Your task to perform on an android device: open the mobile data screen to see how much data has been used Image 0: 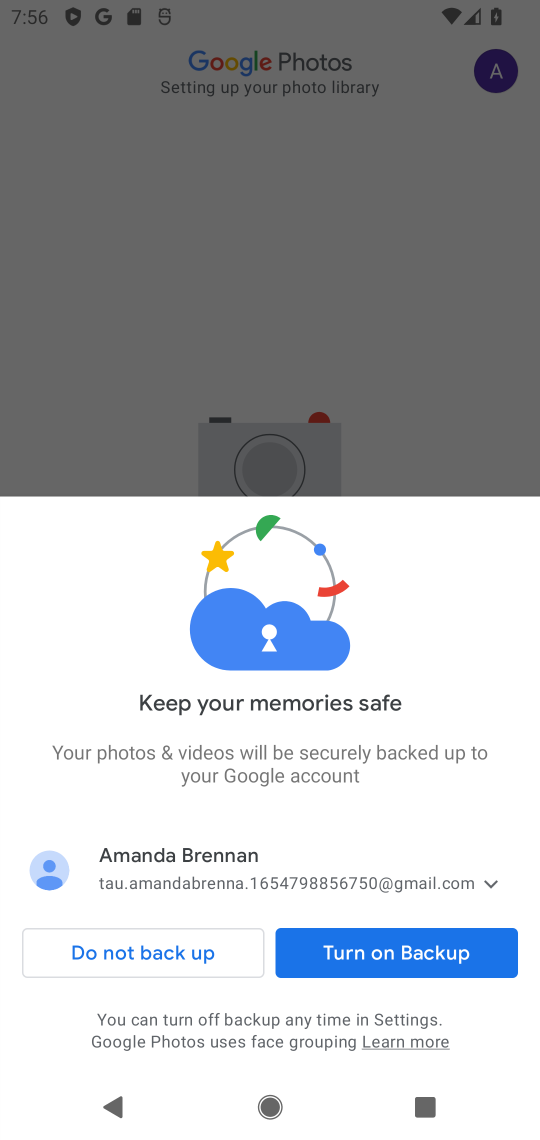
Step 0: press home button
Your task to perform on an android device: open the mobile data screen to see how much data has been used Image 1: 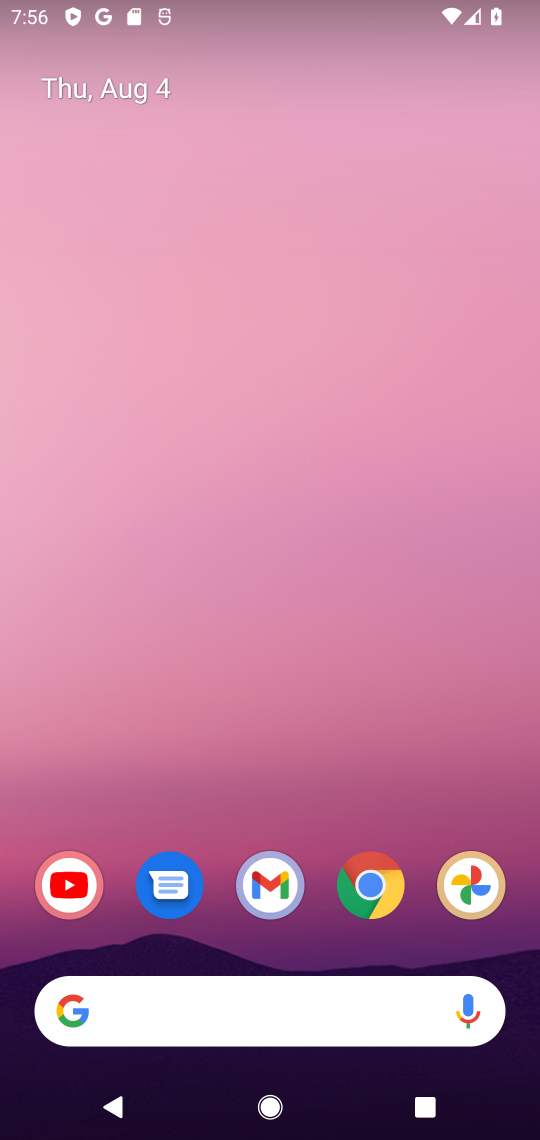
Step 1: drag from (311, 853) to (324, 32)
Your task to perform on an android device: open the mobile data screen to see how much data has been used Image 2: 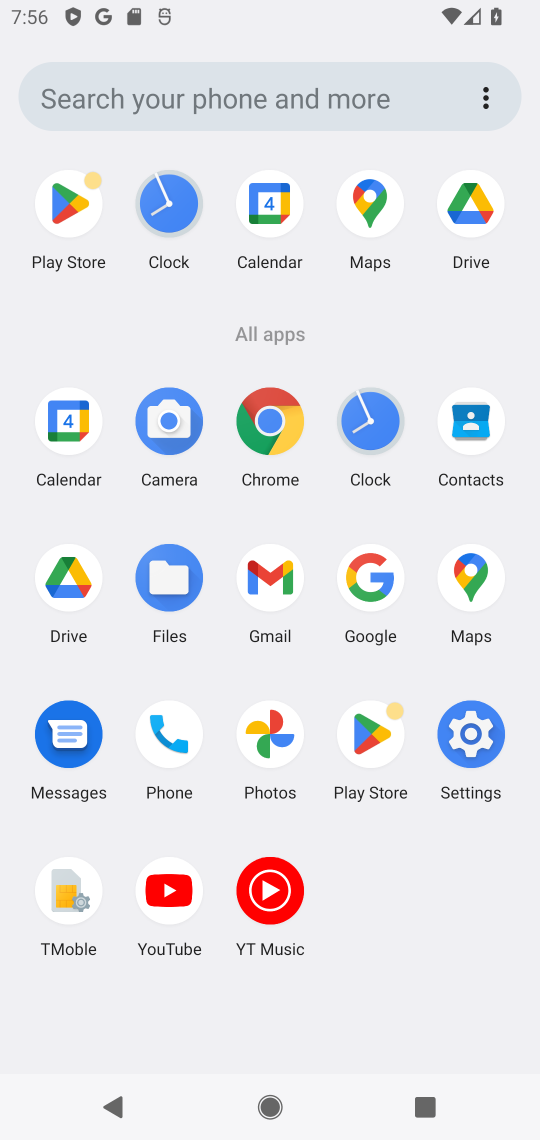
Step 2: click (462, 726)
Your task to perform on an android device: open the mobile data screen to see how much data has been used Image 3: 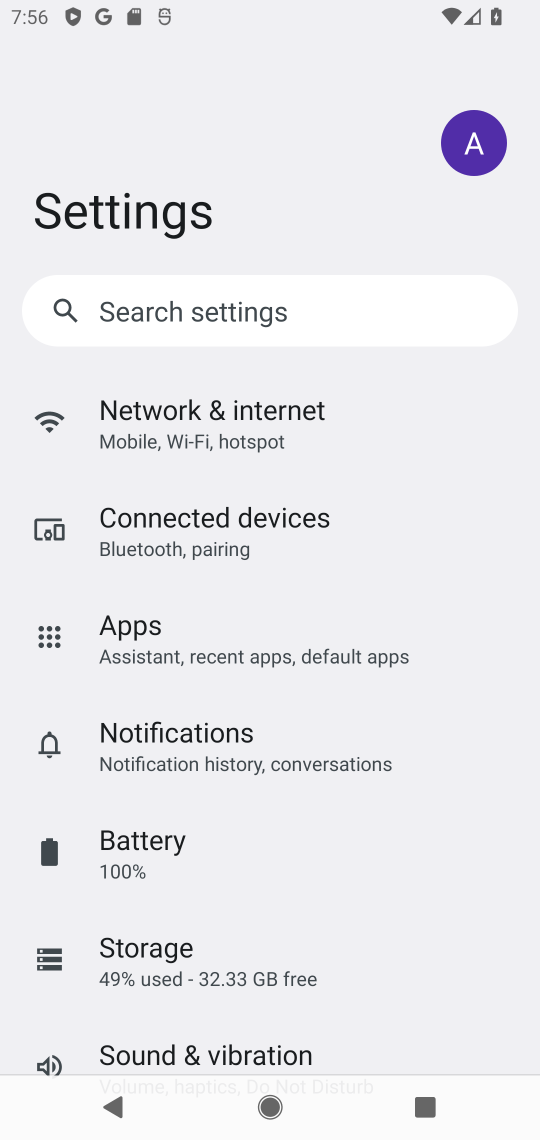
Step 3: click (257, 438)
Your task to perform on an android device: open the mobile data screen to see how much data has been used Image 4: 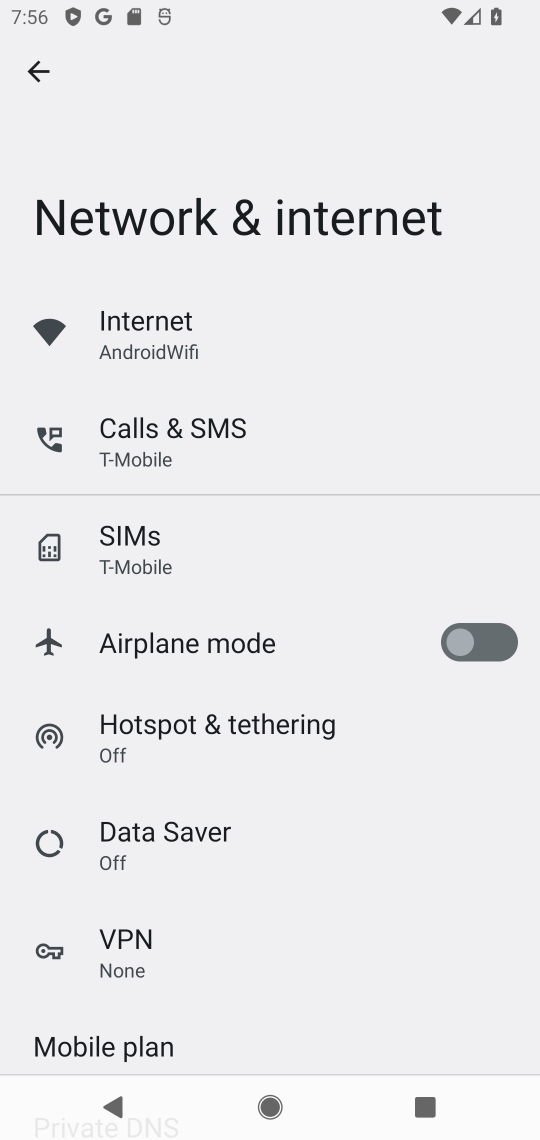
Step 4: click (210, 331)
Your task to perform on an android device: open the mobile data screen to see how much data has been used Image 5: 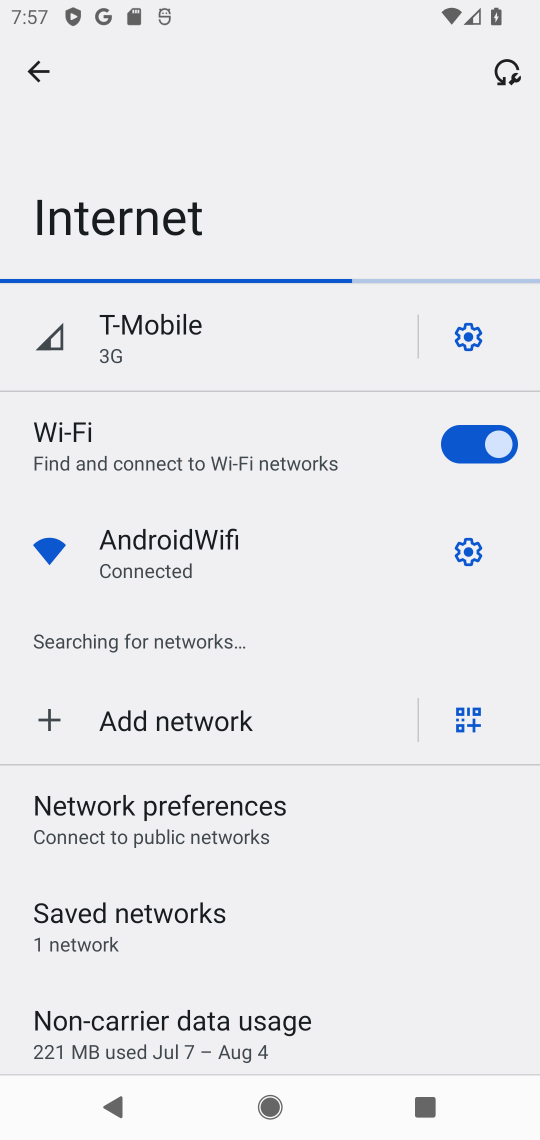
Step 5: click (189, 344)
Your task to perform on an android device: open the mobile data screen to see how much data has been used Image 6: 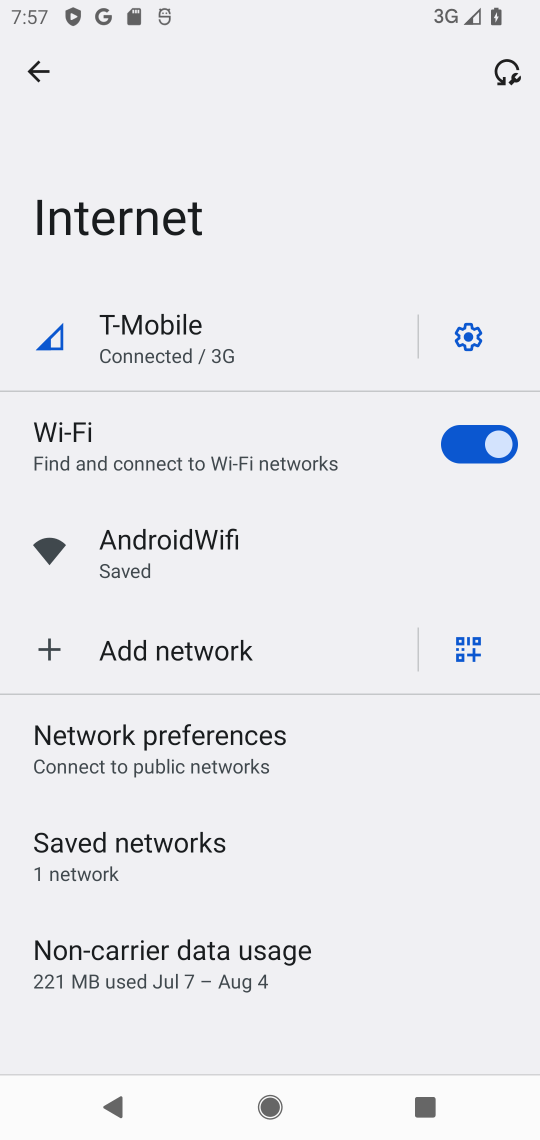
Step 6: click (458, 326)
Your task to perform on an android device: open the mobile data screen to see how much data has been used Image 7: 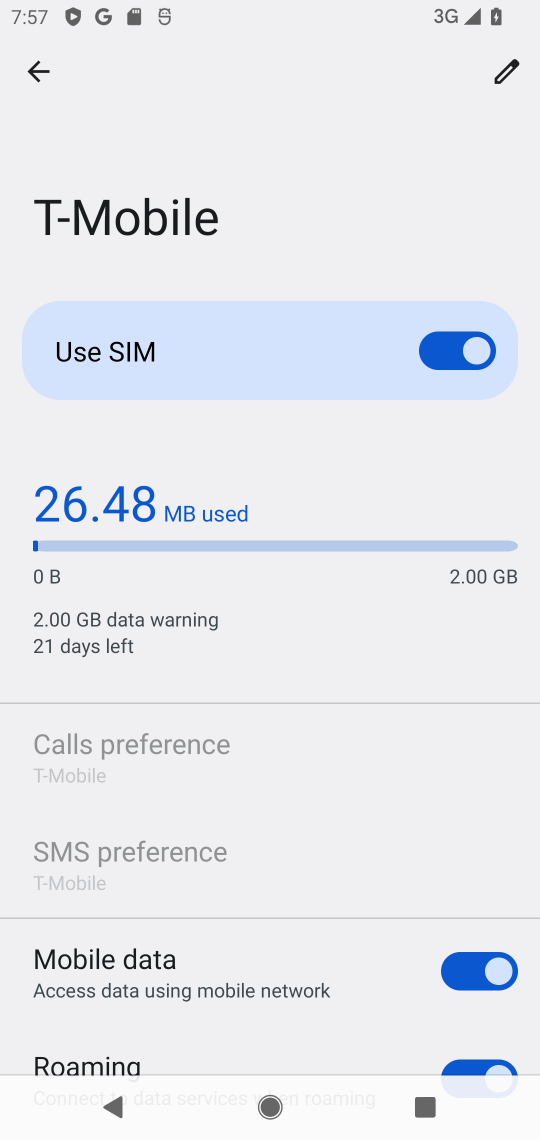
Step 7: drag from (206, 968) to (257, 503)
Your task to perform on an android device: open the mobile data screen to see how much data has been used Image 8: 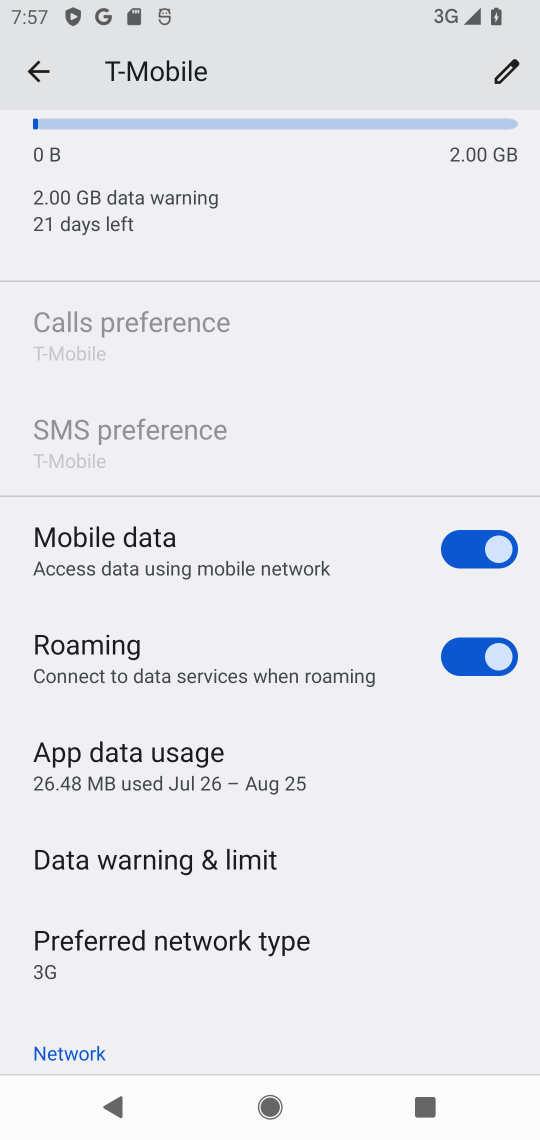
Step 8: click (170, 765)
Your task to perform on an android device: open the mobile data screen to see how much data has been used Image 9: 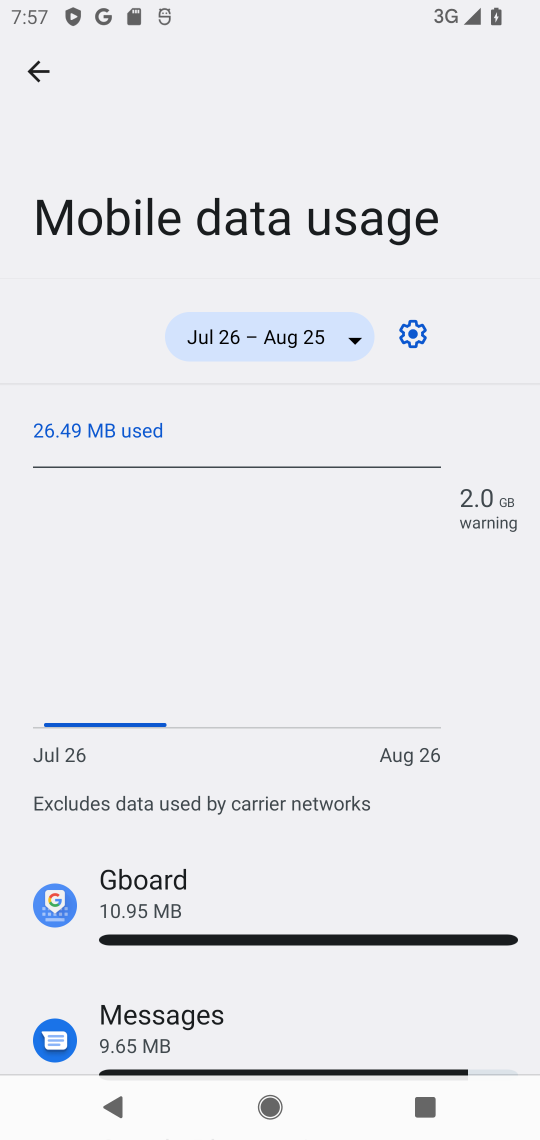
Step 9: task complete